Your task to perform on an android device: Open the web browser Image 0: 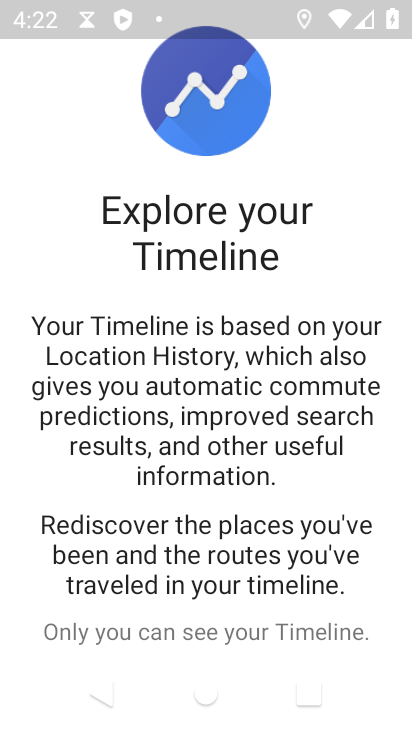
Step 0: press home button
Your task to perform on an android device: Open the web browser Image 1: 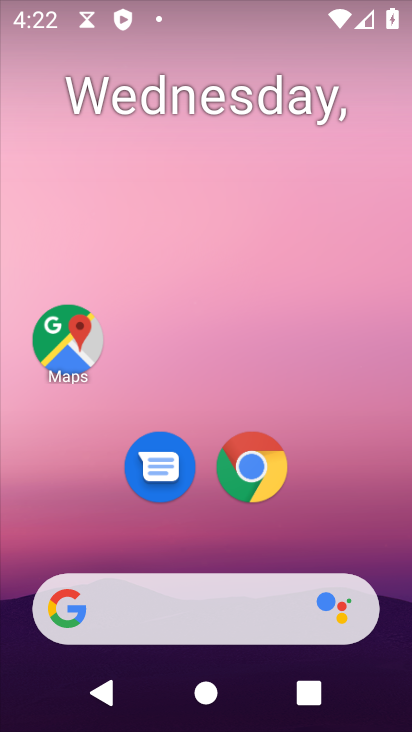
Step 1: click (248, 474)
Your task to perform on an android device: Open the web browser Image 2: 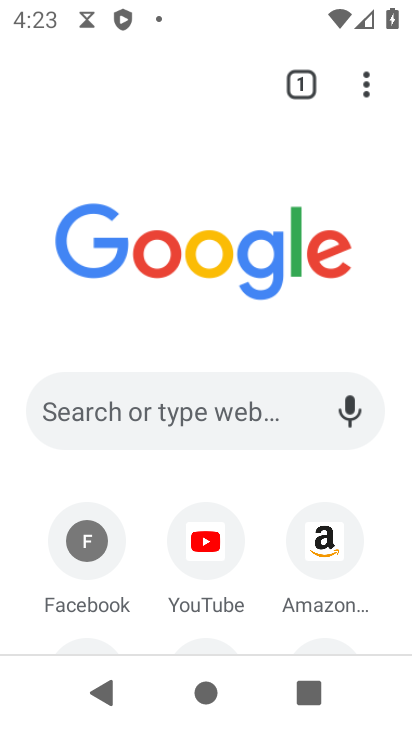
Step 2: task complete